Your task to perform on an android device: turn pop-ups off in chrome Image 0: 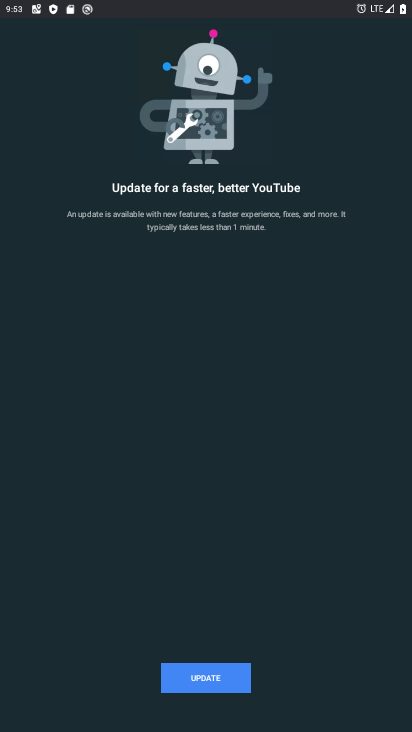
Step 0: press home button
Your task to perform on an android device: turn pop-ups off in chrome Image 1: 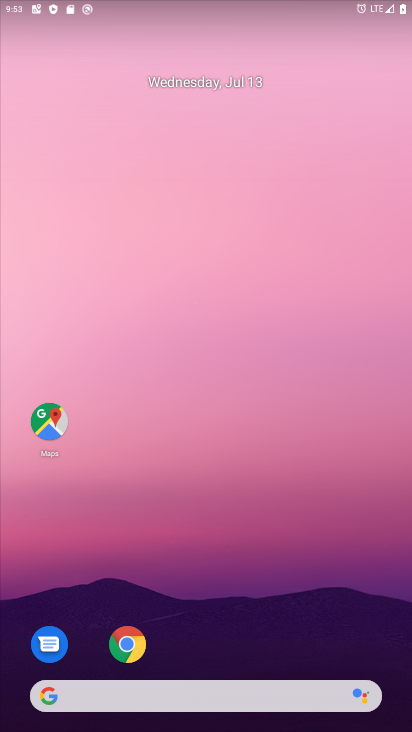
Step 1: click (128, 642)
Your task to perform on an android device: turn pop-ups off in chrome Image 2: 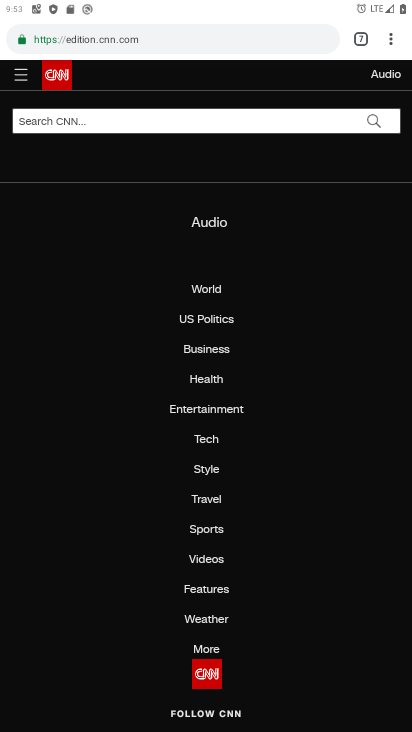
Step 2: click (391, 39)
Your task to perform on an android device: turn pop-ups off in chrome Image 3: 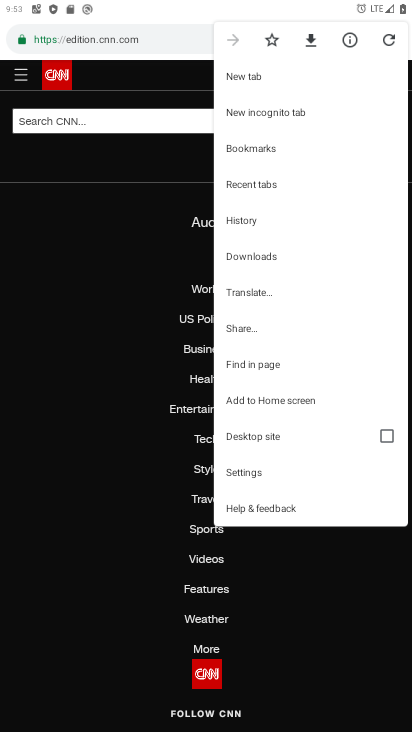
Step 3: click (236, 470)
Your task to perform on an android device: turn pop-ups off in chrome Image 4: 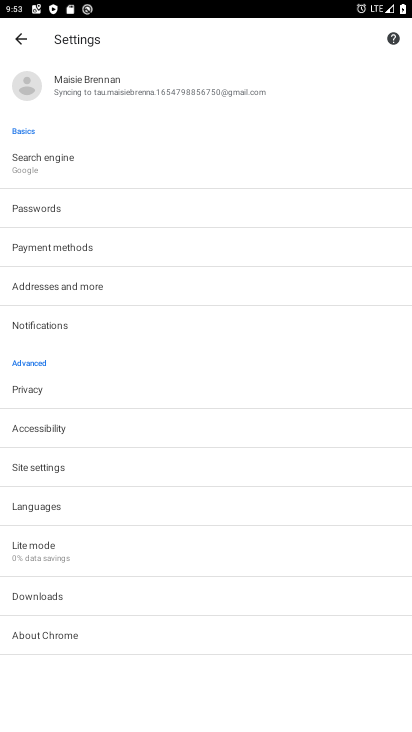
Step 4: click (52, 465)
Your task to perform on an android device: turn pop-ups off in chrome Image 5: 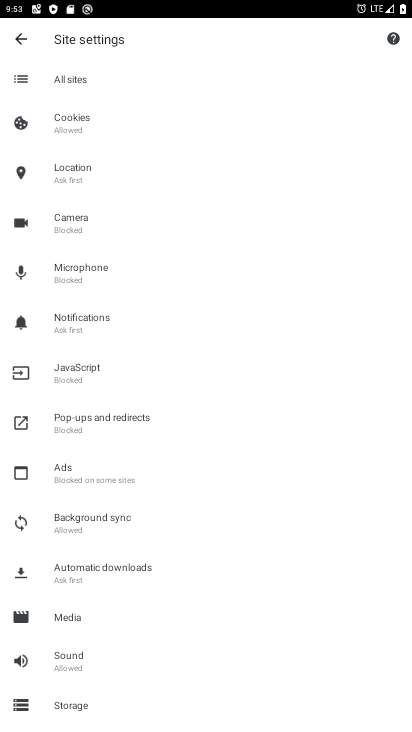
Step 5: click (88, 420)
Your task to perform on an android device: turn pop-ups off in chrome Image 6: 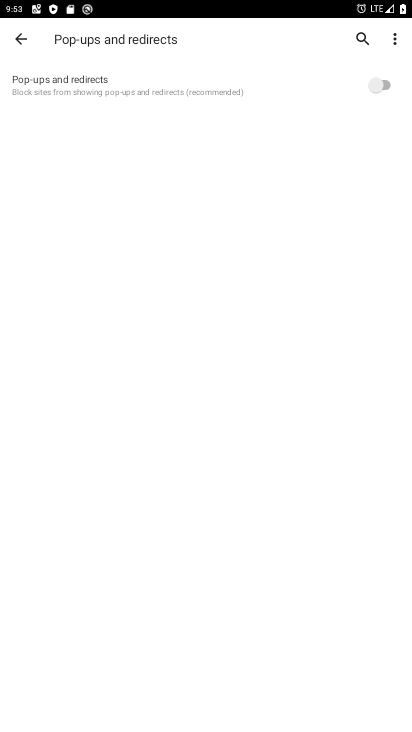
Step 6: task complete